Your task to perform on an android device: turn off notifications in google photos Image 0: 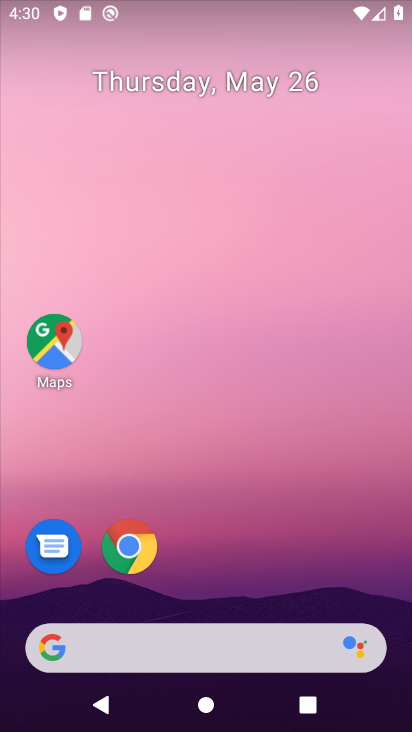
Step 0: drag from (233, 595) to (151, 94)
Your task to perform on an android device: turn off notifications in google photos Image 1: 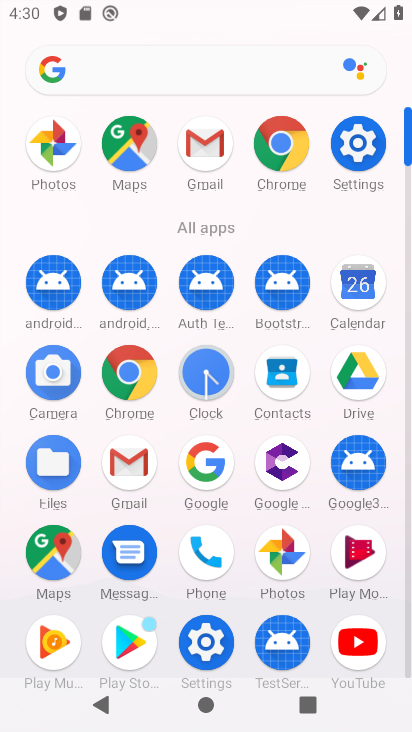
Step 1: click (54, 139)
Your task to perform on an android device: turn off notifications in google photos Image 2: 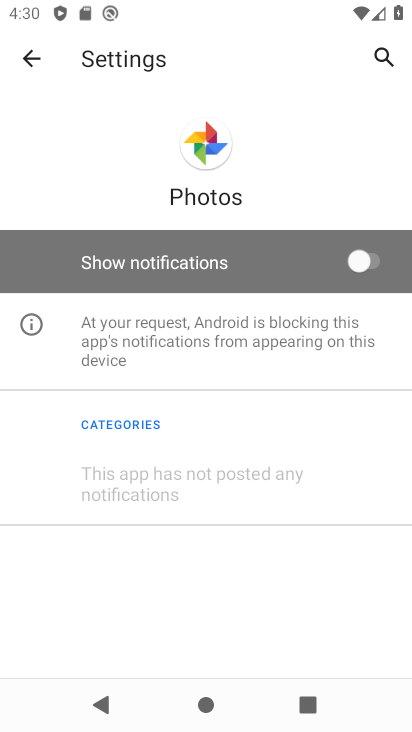
Step 2: task complete